Your task to perform on an android device: open app "DoorDash - Dasher" (install if not already installed), go to login, and select forgot password Image 0: 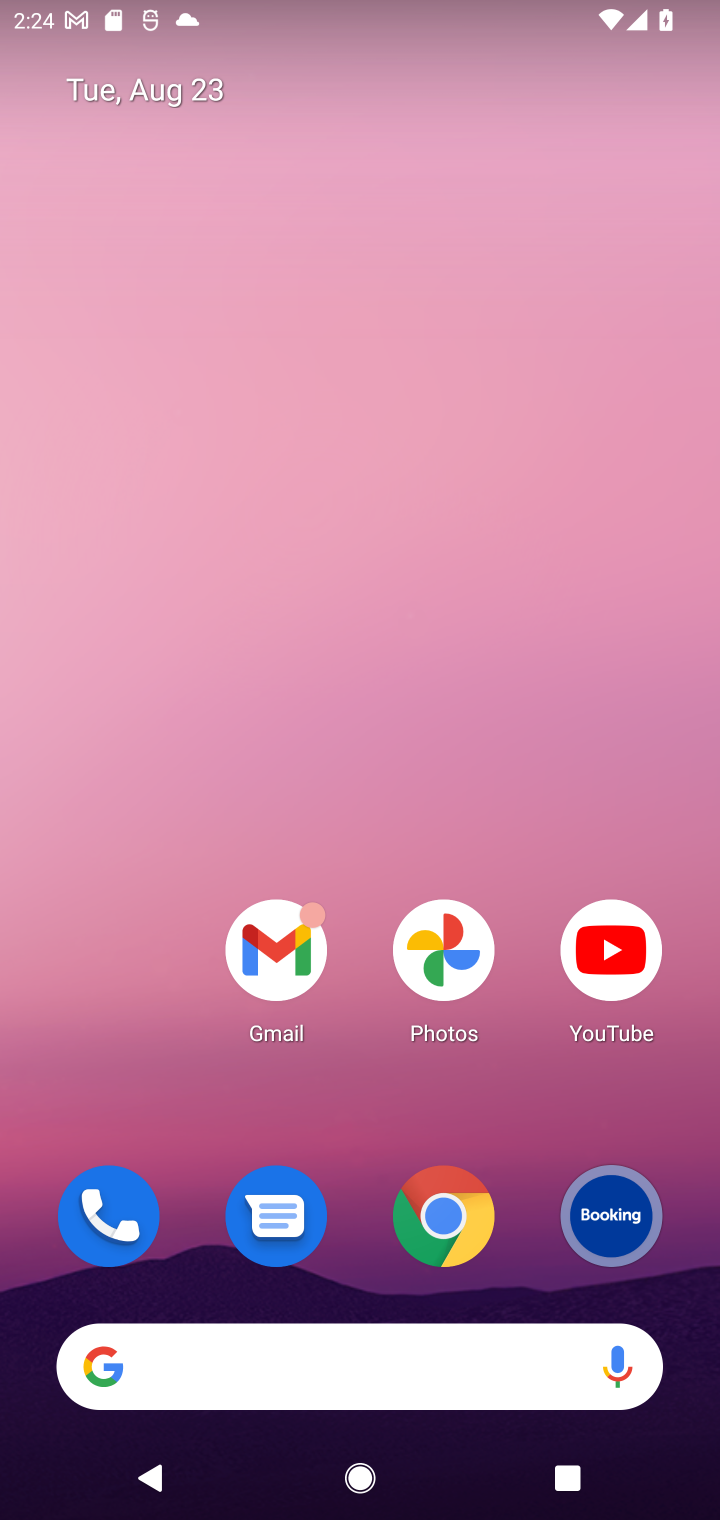
Step 0: drag from (246, 1280) to (252, 152)
Your task to perform on an android device: open app "DoorDash - Dasher" (install if not already installed), go to login, and select forgot password Image 1: 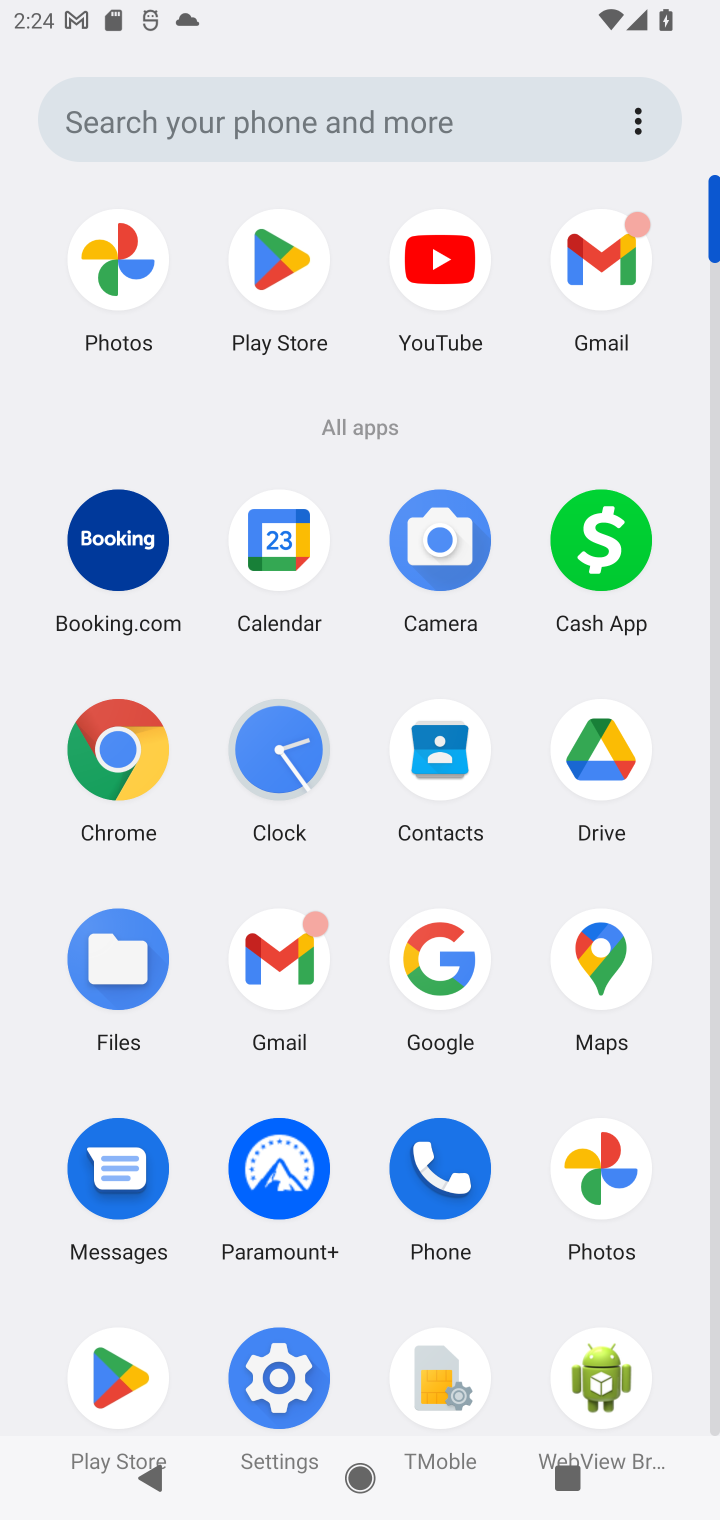
Step 1: click (250, 246)
Your task to perform on an android device: open app "DoorDash - Dasher" (install if not already installed), go to login, and select forgot password Image 2: 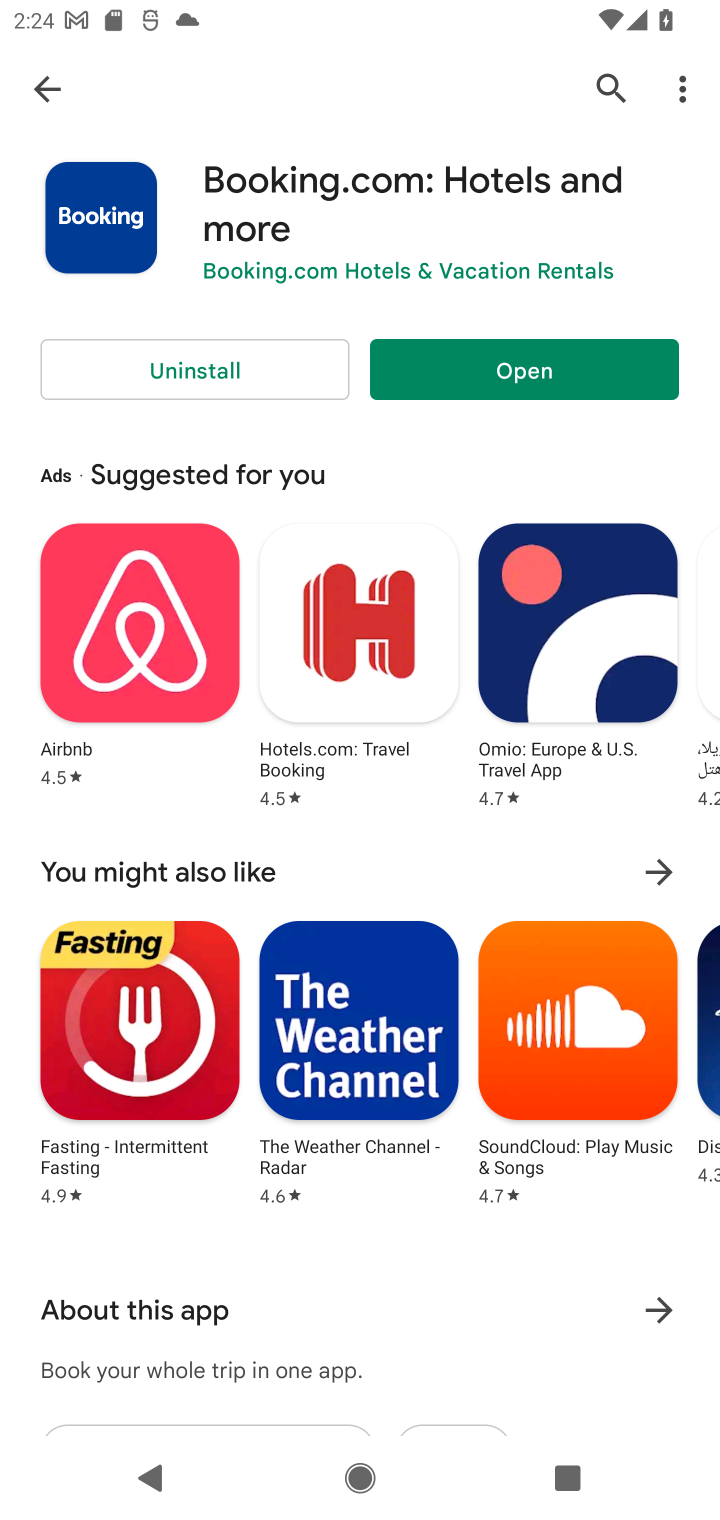
Step 2: click (45, 90)
Your task to perform on an android device: open app "DoorDash - Dasher" (install if not already installed), go to login, and select forgot password Image 3: 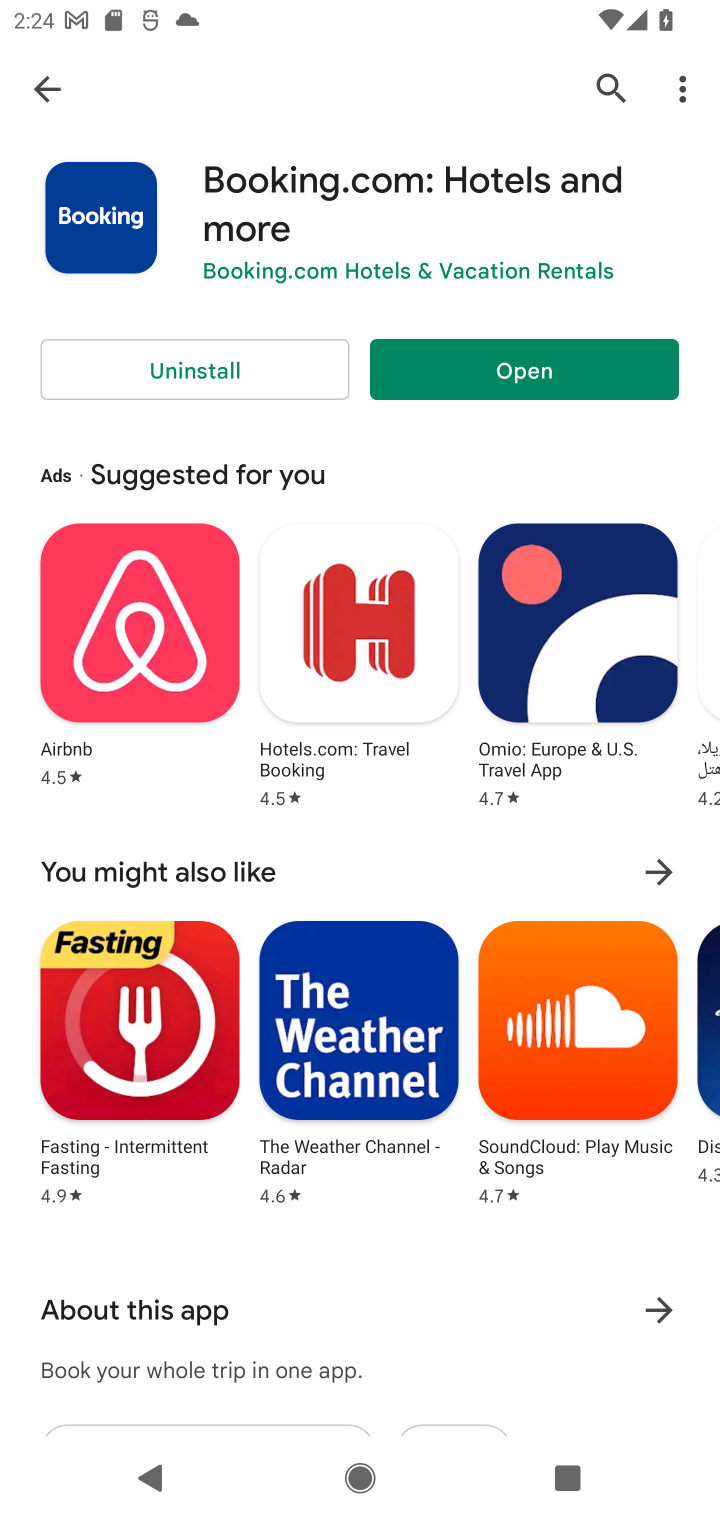
Step 3: click (62, 83)
Your task to perform on an android device: open app "DoorDash - Dasher" (install if not already installed), go to login, and select forgot password Image 4: 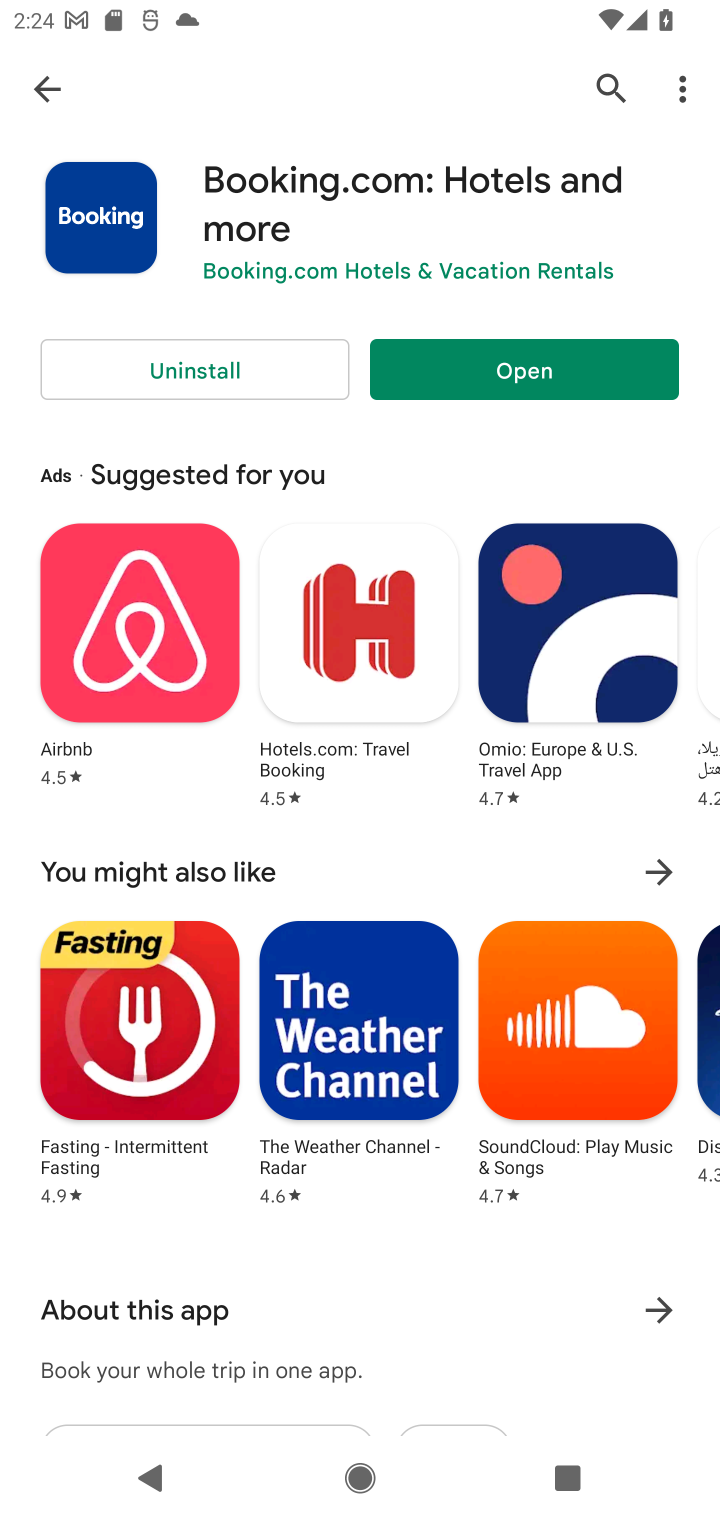
Step 4: click (55, 101)
Your task to perform on an android device: open app "DoorDash - Dasher" (install if not already installed), go to login, and select forgot password Image 5: 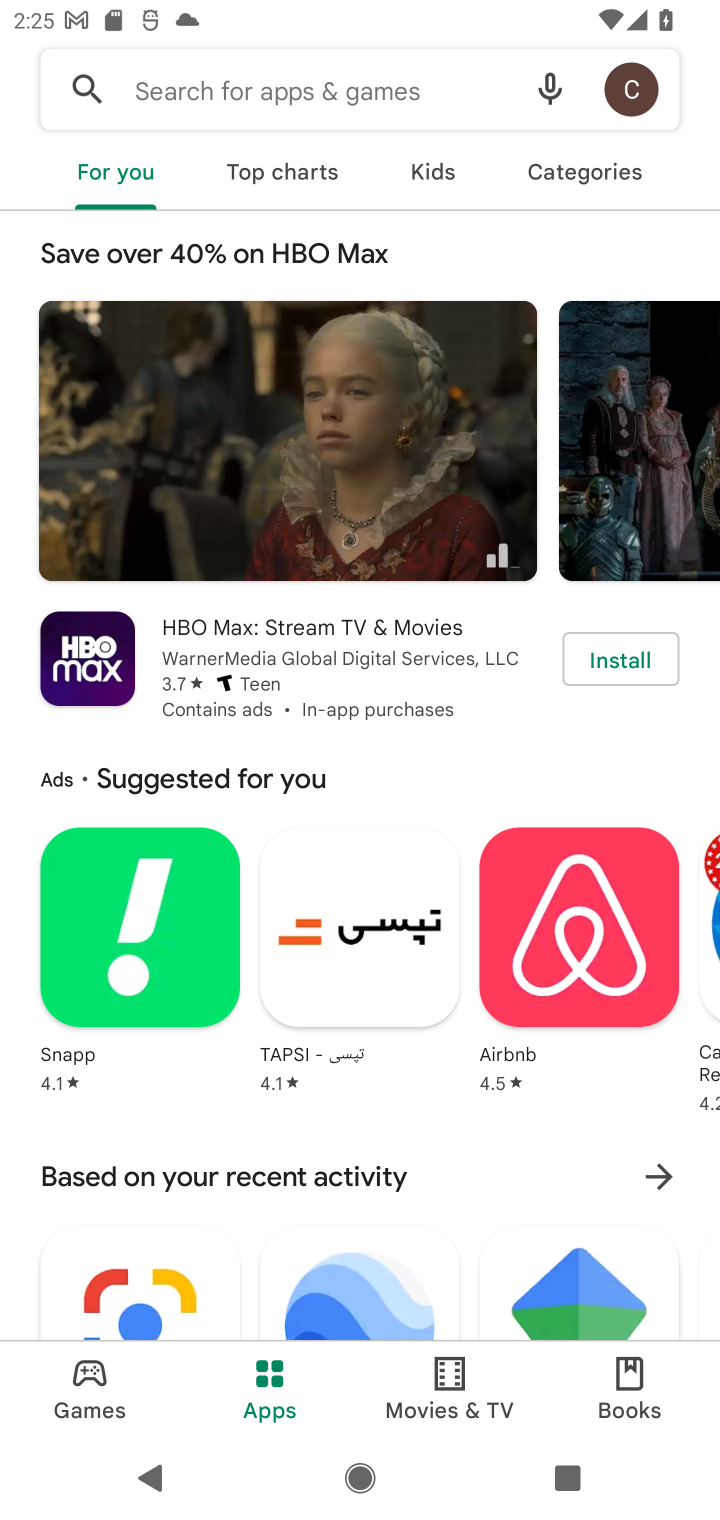
Step 5: click (345, 69)
Your task to perform on an android device: open app "DoorDash - Dasher" (install if not already installed), go to login, and select forgot password Image 6: 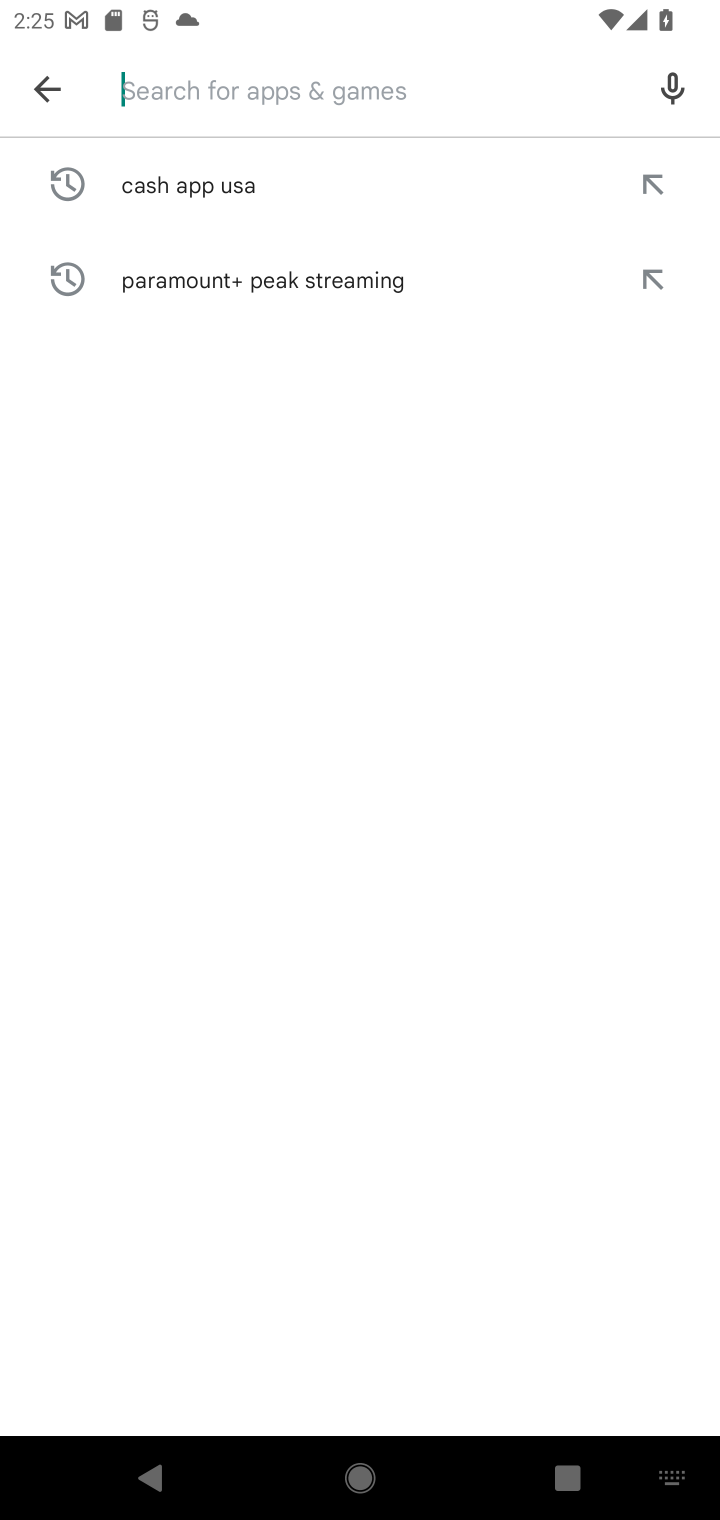
Step 6: type "DoorDash - Dasher "
Your task to perform on an android device: open app "DoorDash - Dasher" (install if not already installed), go to login, and select forgot password Image 7: 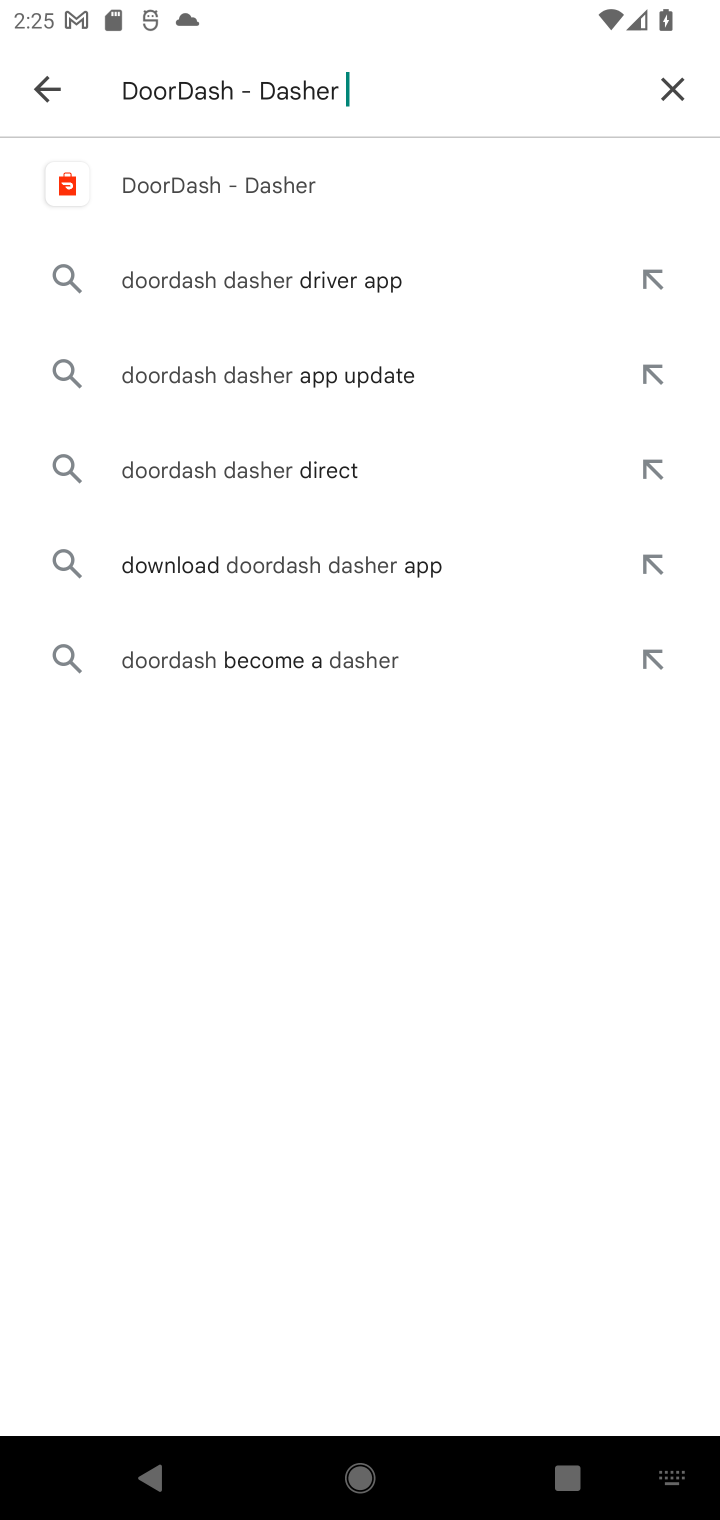
Step 7: click (169, 169)
Your task to perform on an android device: open app "DoorDash - Dasher" (install if not already installed), go to login, and select forgot password Image 8: 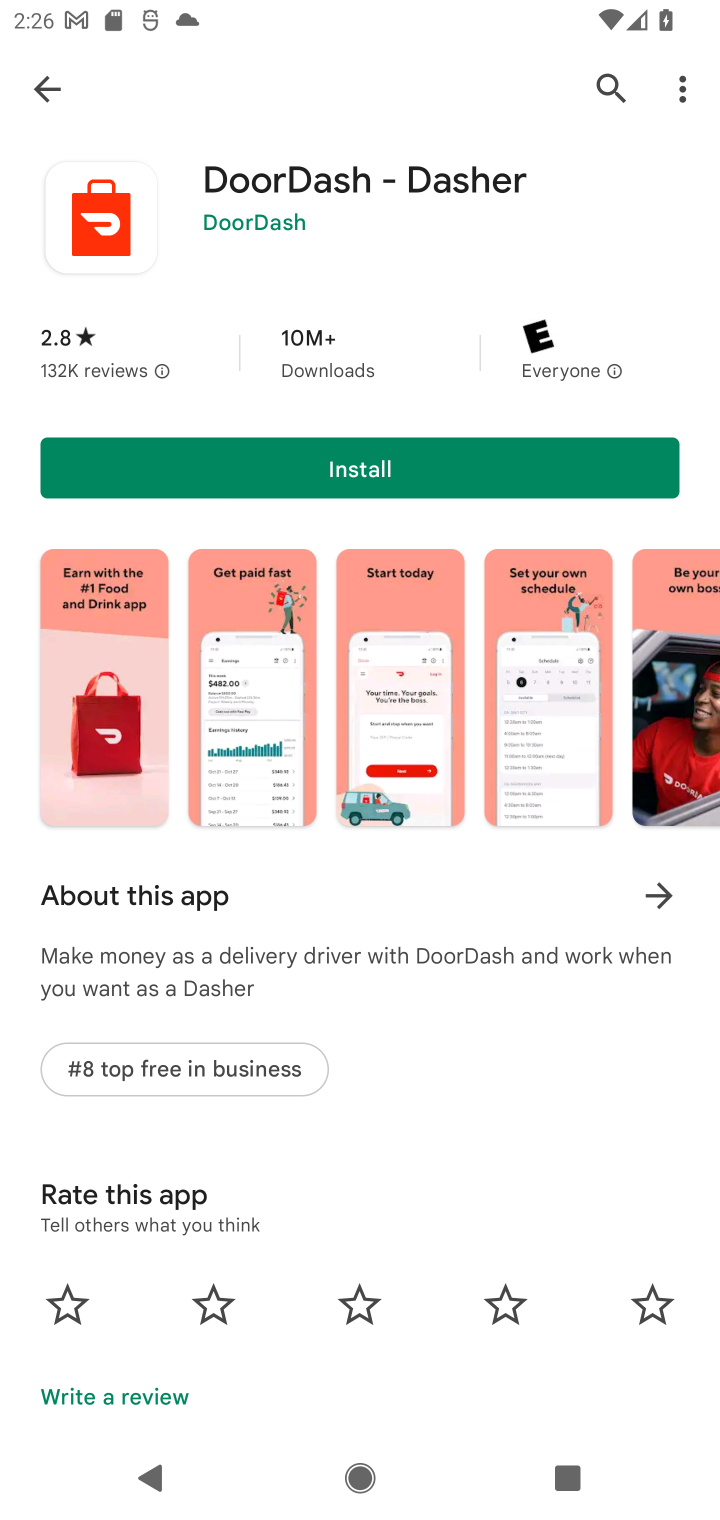
Step 8: click (352, 467)
Your task to perform on an android device: open app "DoorDash - Dasher" (install if not already installed), go to login, and select forgot password Image 9: 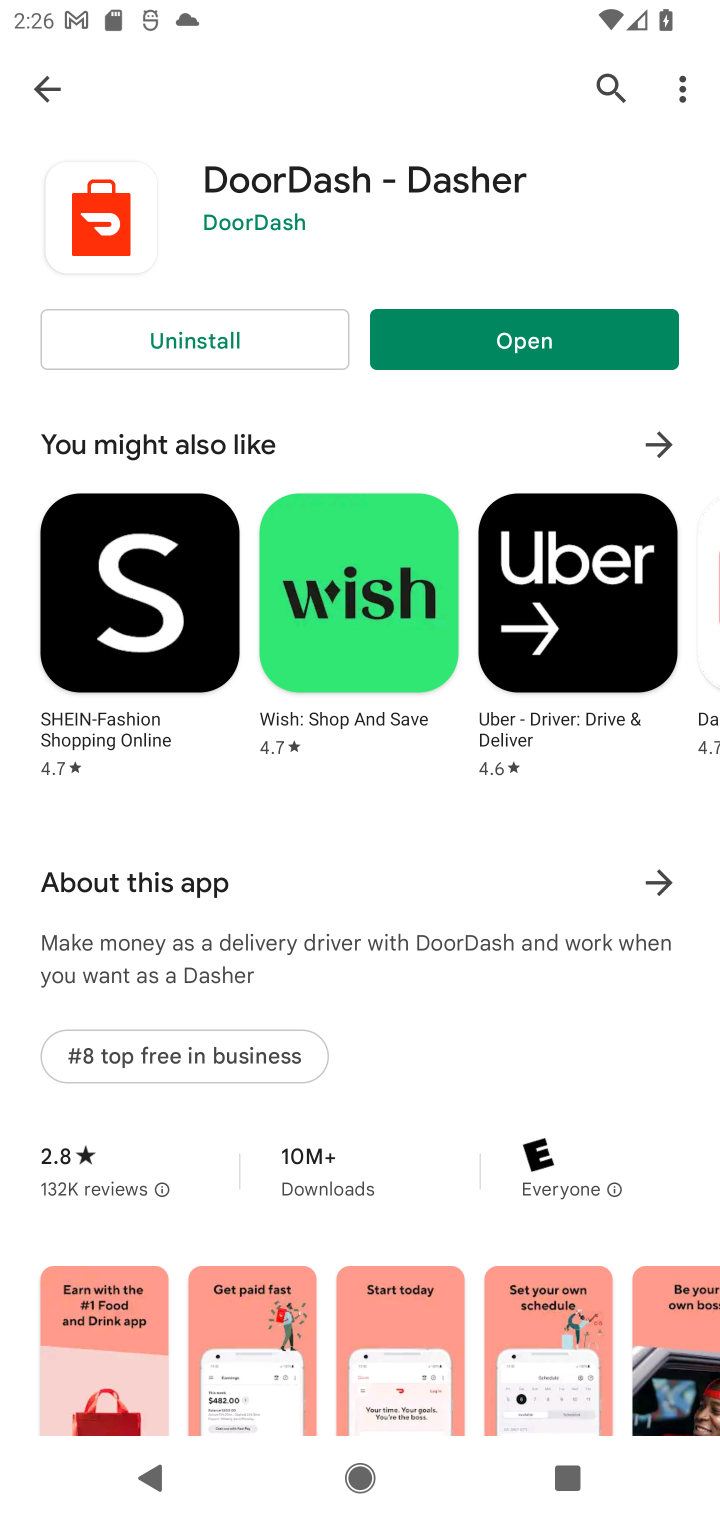
Step 9: click (477, 330)
Your task to perform on an android device: open app "DoorDash - Dasher" (install if not already installed), go to login, and select forgot password Image 10: 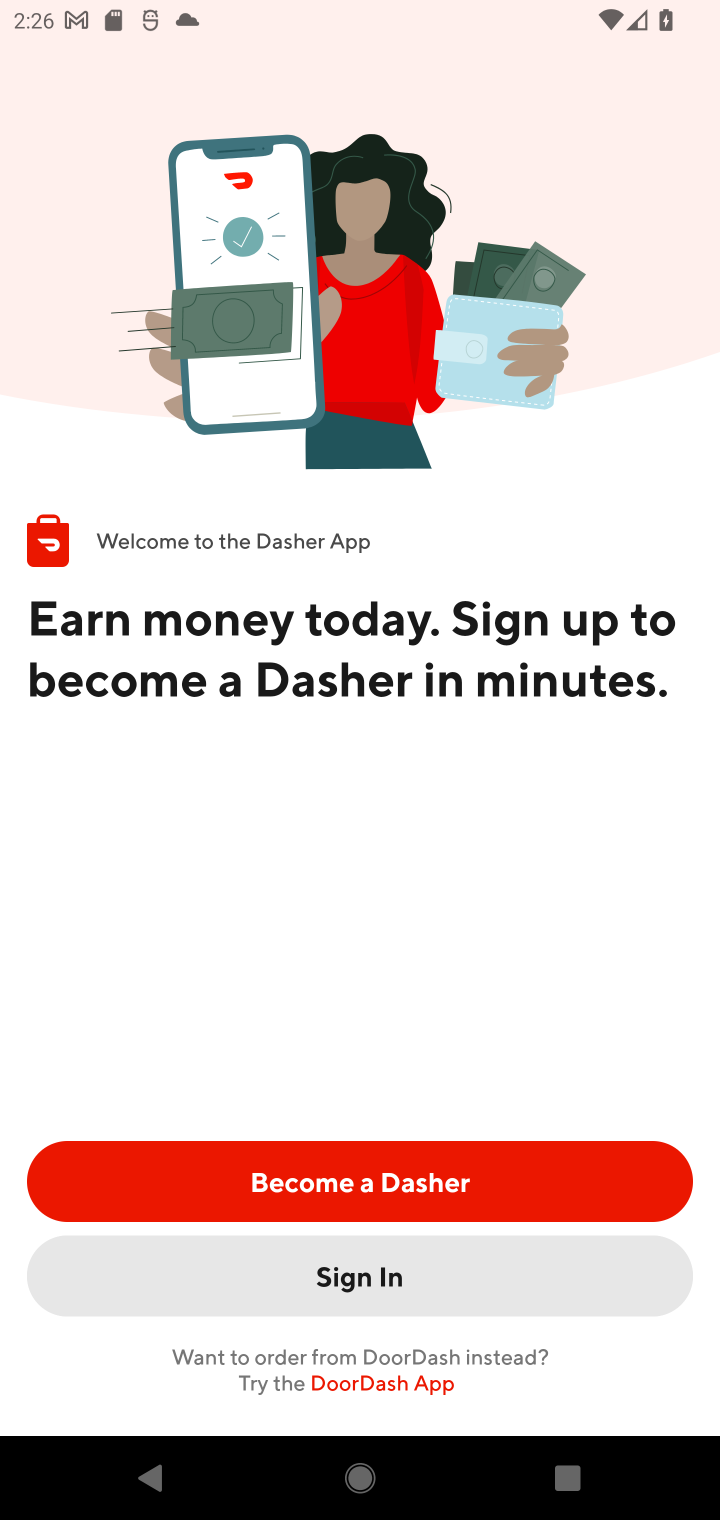
Step 10: task complete